Your task to perform on an android device: Clear the cart on costco.com. Add razer kraken to the cart on costco.com, then select checkout. Image 0: 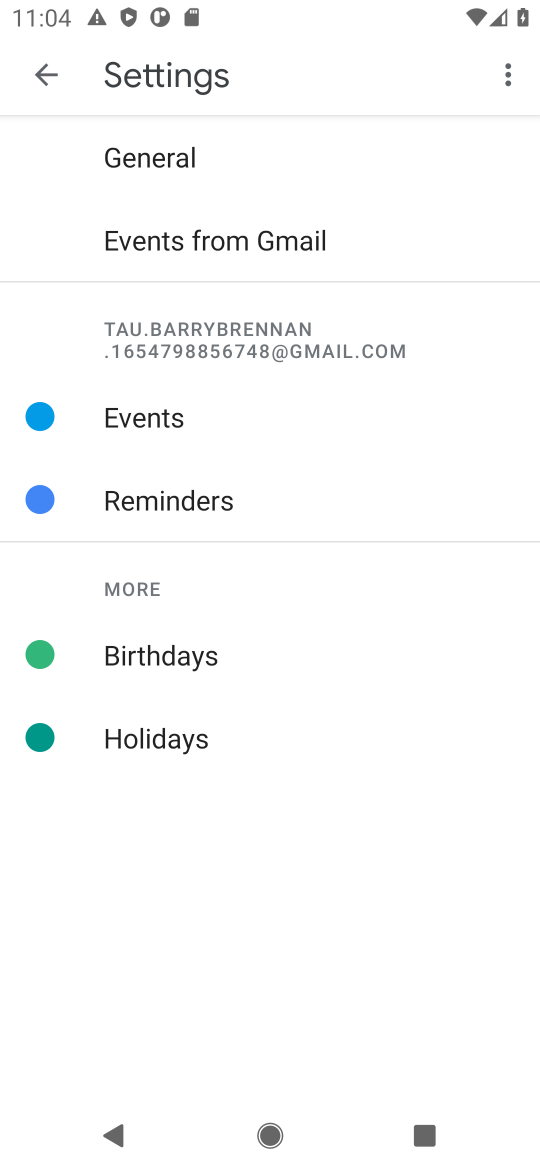
Step 0: task complete